Your task to perform on an android device: Go to eBay Image 0: 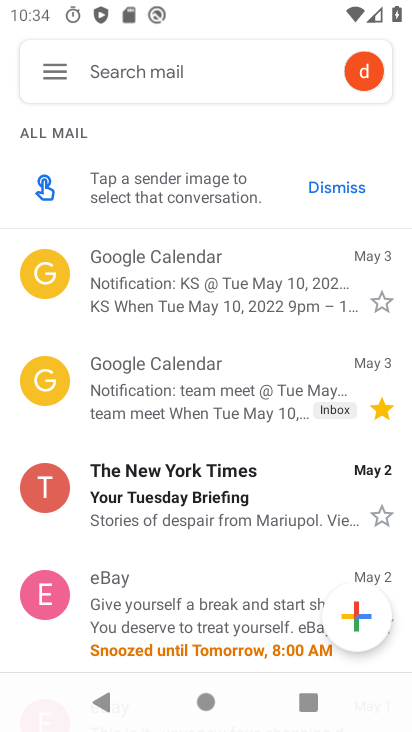
Step 0: click (55, 70)
Your task to perform on an android device: Go to eBay Image 1: 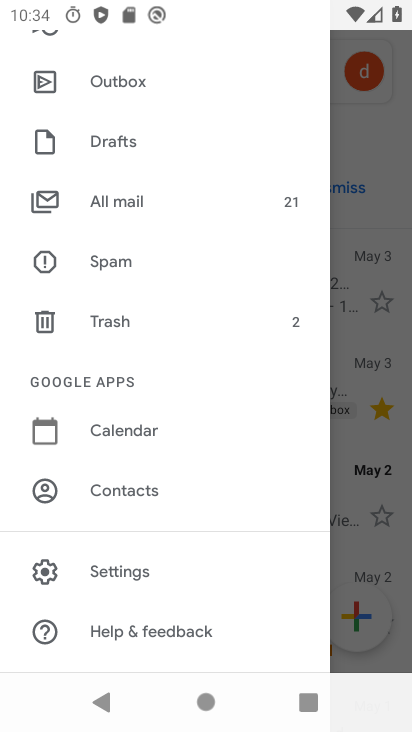
Step 1: press home button
Your task to perform on an android device: Go to eBay Image 2: 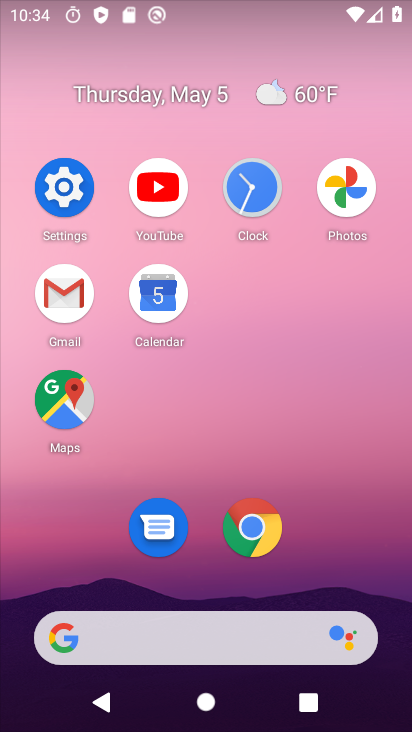
Step 2: click (265, 502)
Your task to perform on an android device: Go to eBay Image 3: 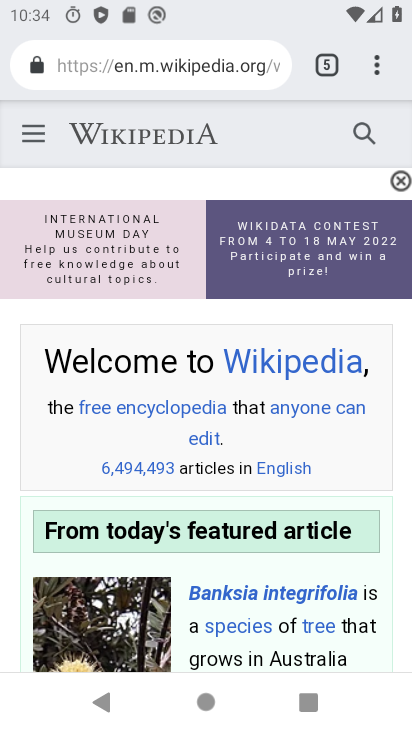
Step 3: click (331, 65)
Your task to perform on an android device: Go to eBay Image 4: 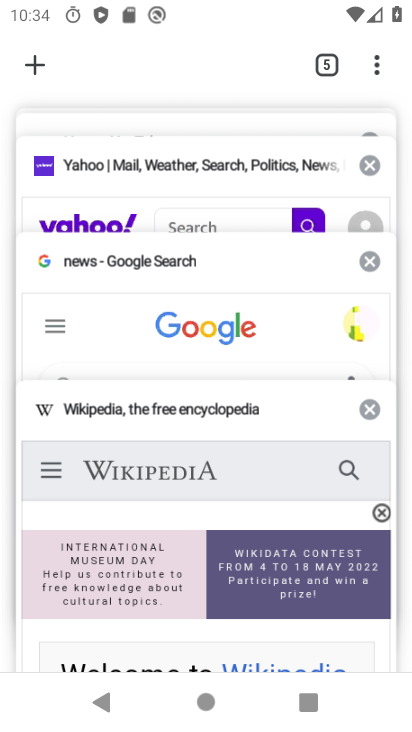
Step 4: click (26, 73)
Your task to perform on an android device: Go to eBay Image 5: 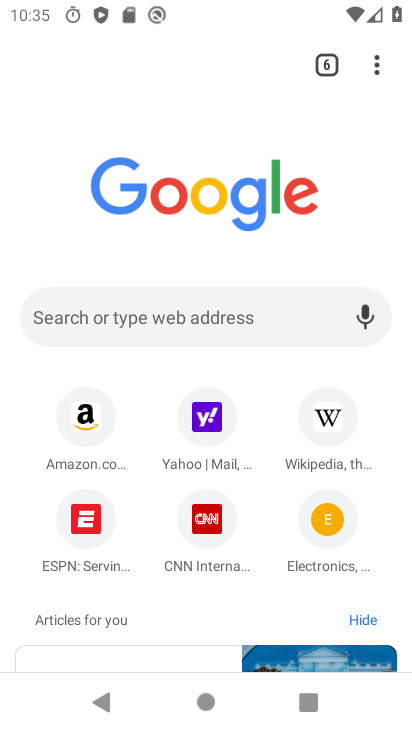
Step 5: click (198, 325)
Your task to perform on an android device: Go to eBay Image 6: 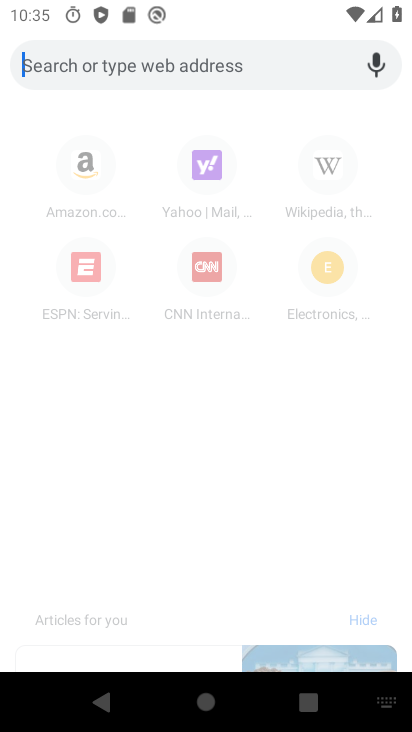
Step 6: type "ebay"
Your task to perform on an android device: Go to eBay Image 7: 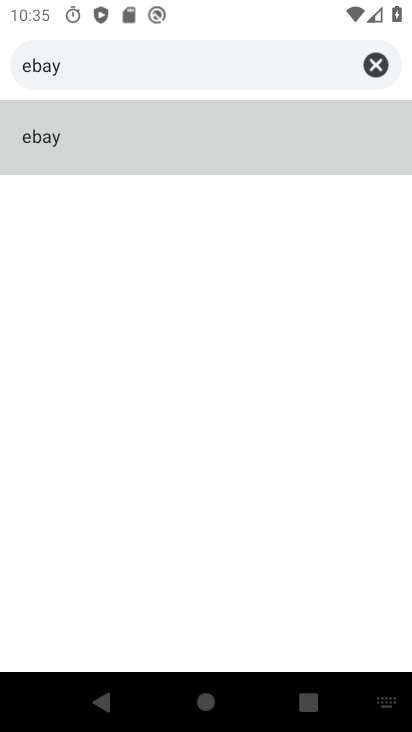
Step 7: click (66, 148)
Your task to perform on an android device: Go to eBay Image 8: 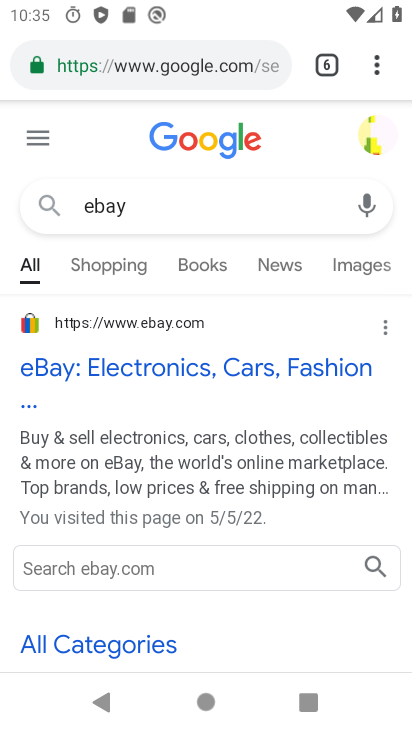
Step 8: click (150, 363)
Your task to perform on an android device: Go to eBay Image 9: 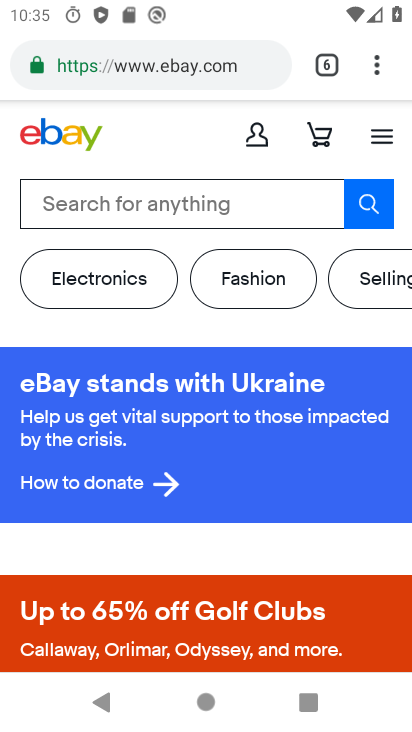
Step 9: task complete